Your task to perform on an android device: toggle sleep mode Image 0: 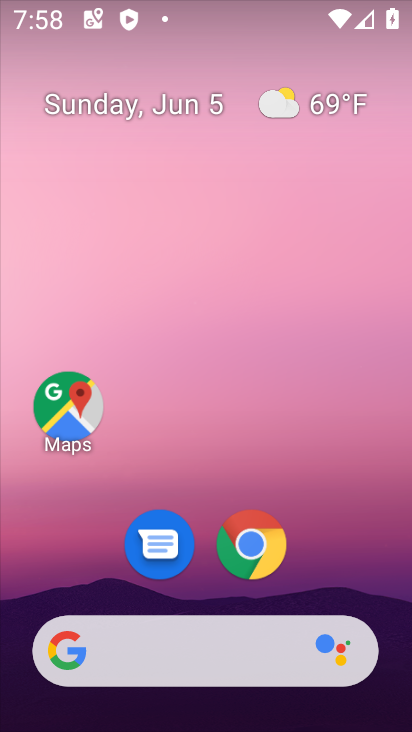
Step 0: drag from (363, 572) to (364, 197)
Your task to perform on an android device: toggle sleep mode Image 1: 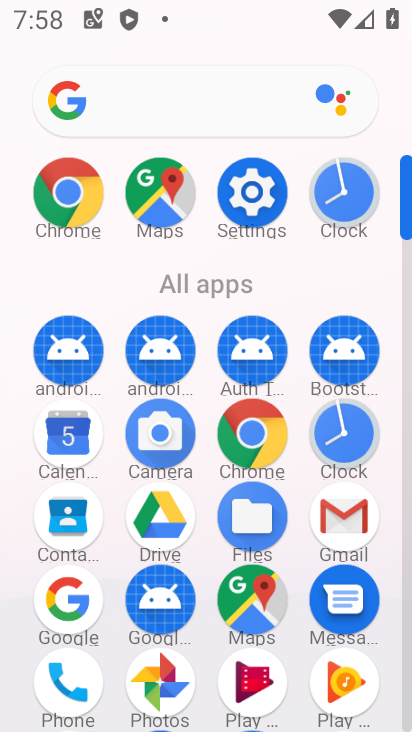
Step 1: click (267, 209)
Your task to perform on an android device: toggle sleep mode Image 2: 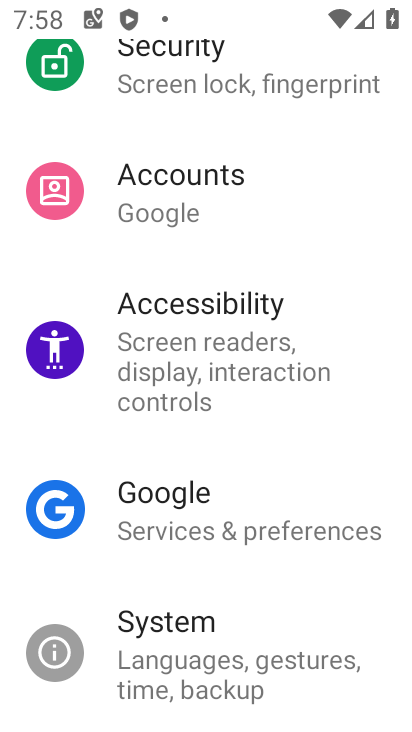
Step 2: drag from (339, 216) to (356, 353)
Your task to perform on an android device: toggle sleep mode Image 3: 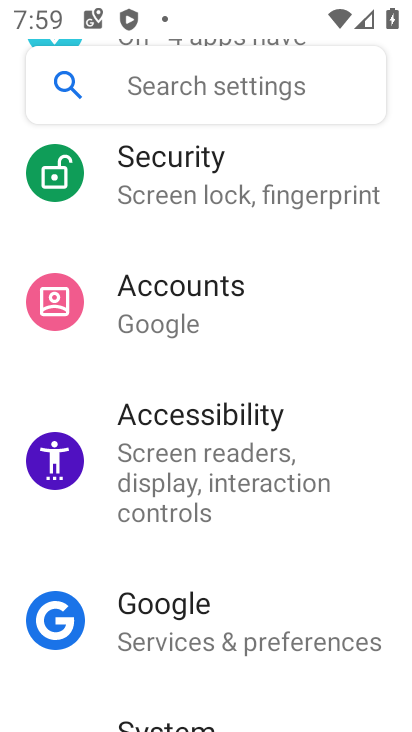
Step 3: drag from (359, 250) to (358, 414)
Your task to perform on an android device: toggle sleep mode Image 4: 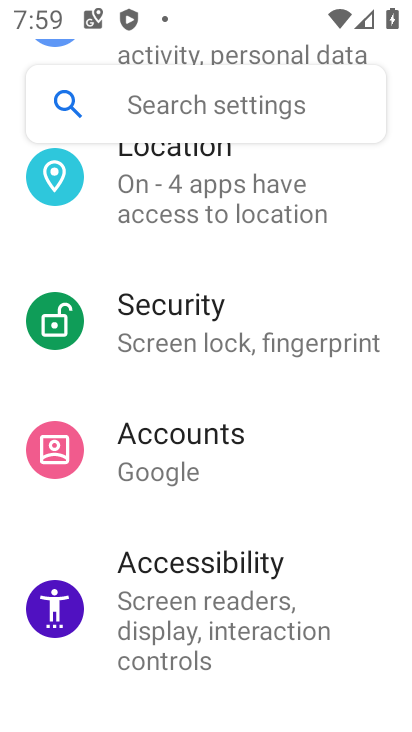
Step 4: drag from (365, 205) to (362, 400)
Your task to perform on an android device: toggle sleep mode Image 5: 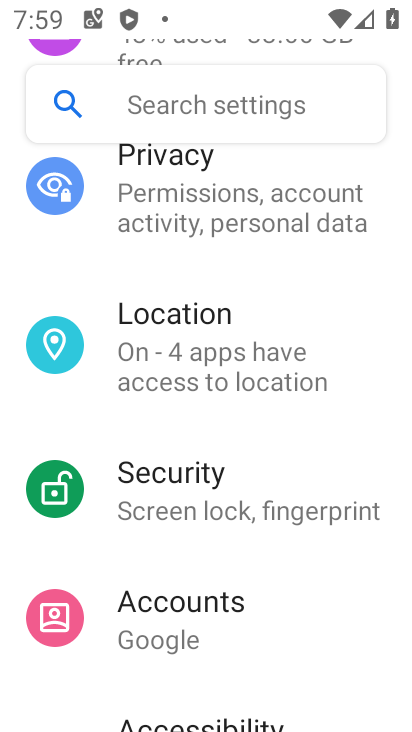
Step 5: drag from (377, 261) to (377, 390)
Your task to perform on an android device: toggle sleep mode Image 6: 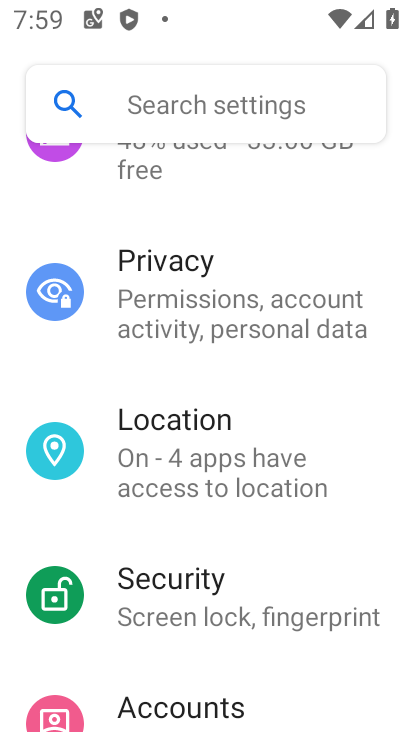
Step 6: drag from (368, 231) to (373, 392)
Your task to perform on an android device: toggle sleep mode Image 7: 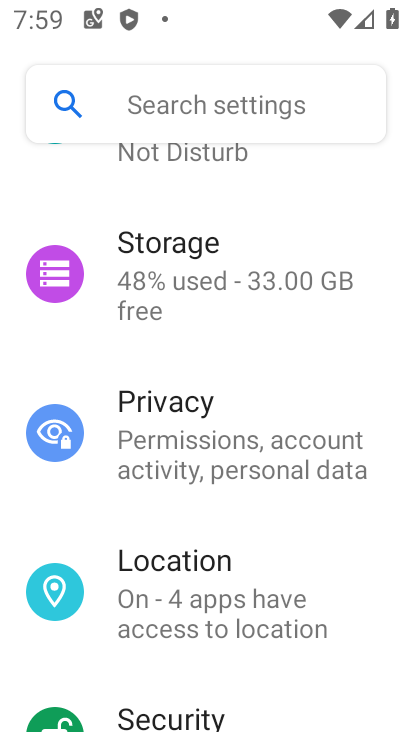
Step 7: drag from (373, 241) to (372, 368)
Your task to perform on an android device: toggle sleep mode Image 8: 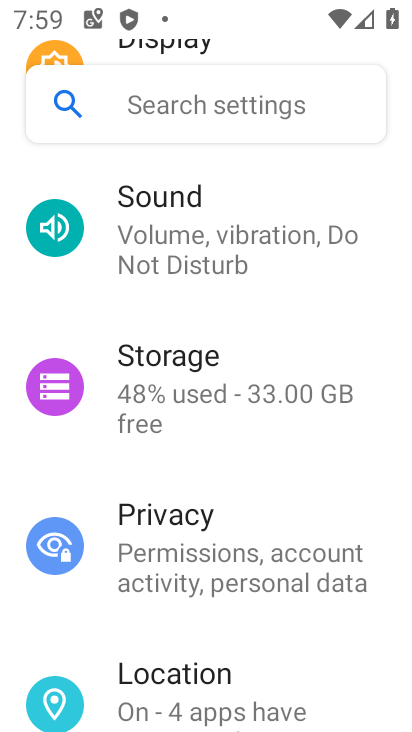
Step 8: drag from (373, 213) to (376, 321)
Your task to perform on an android device: toggle sleep mode Image 9: 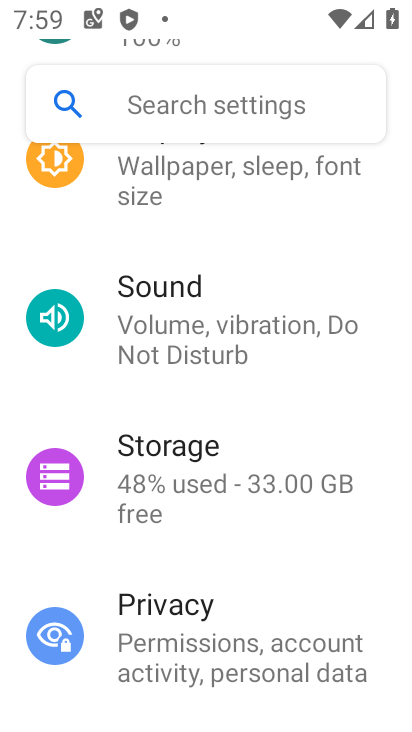
Step 9: drag from (372, 209) to (379, 328)
Your task to perform on an android device: toggle sleep mode Image 10: 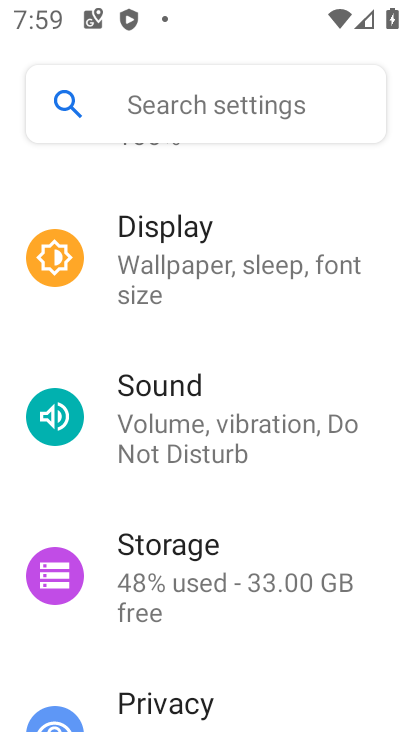
Step 10: drag from (386, 230) to (381, 375)
Your task to perform on an android device: toggle sleep mode Image 11: 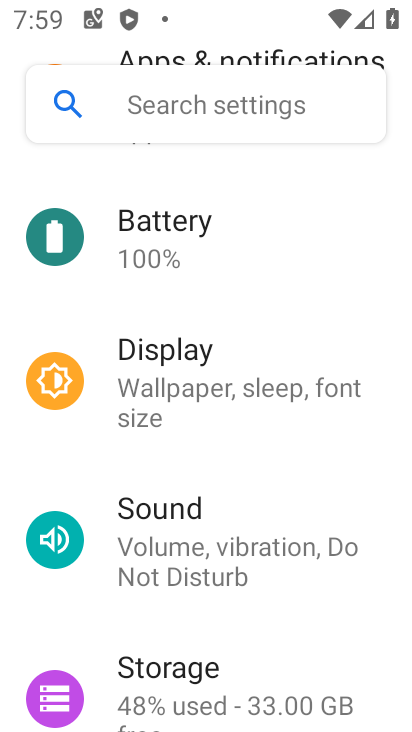
Step 11: drag from (374, 274) to (370, 424)
Your task to perform on an android device: toggle sleep mode Image 12: 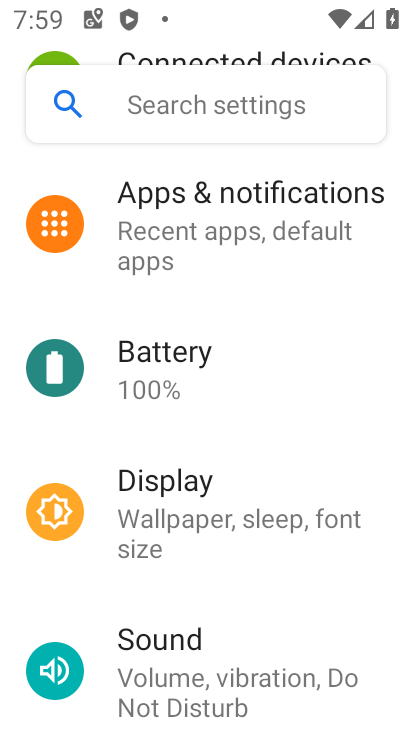
Step 12: click (323, 506)
Your task to perform on an android device: toggle sleep mode Image 13: 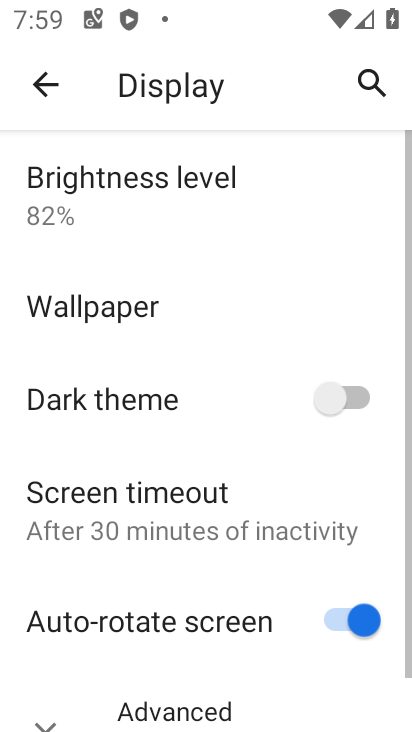
Step 13: drag from (309, 561) to (306, 421)
Your task to perform on an android device: toggle sleep mode Image 14: 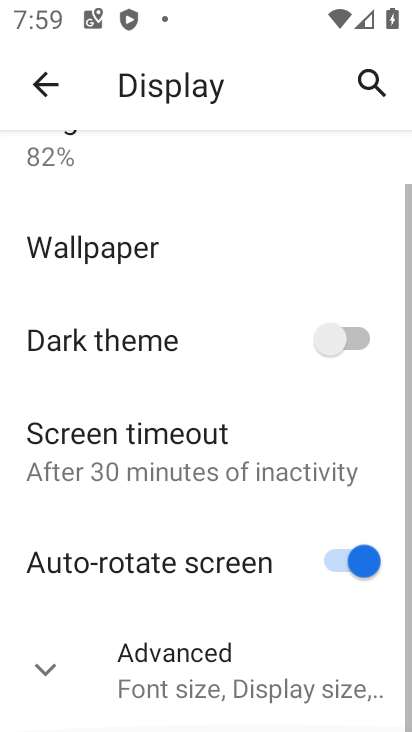
Step 14: click (290, 629)
Your task to perform on an android device: toggle sleep mode Image 15: 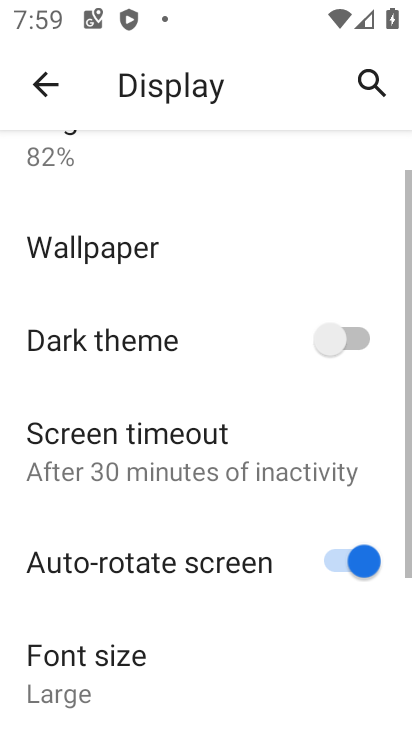
Step 15: task complete